Your task to perform on an android device: change alarm snooze length Image 0: 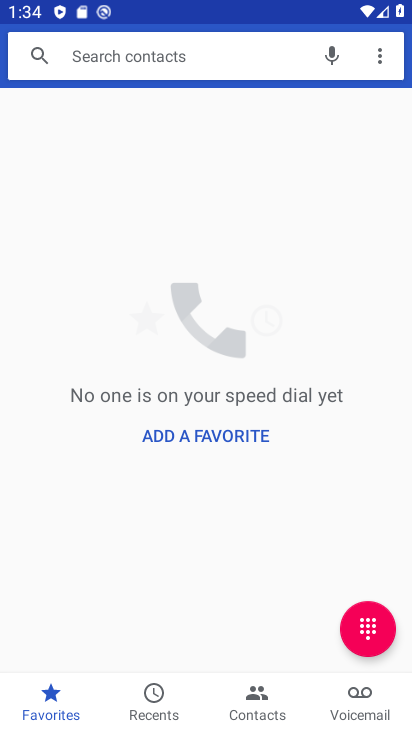
Step 0: press home button
Your task to perform on an android device: change alarm snooze length Image 1: 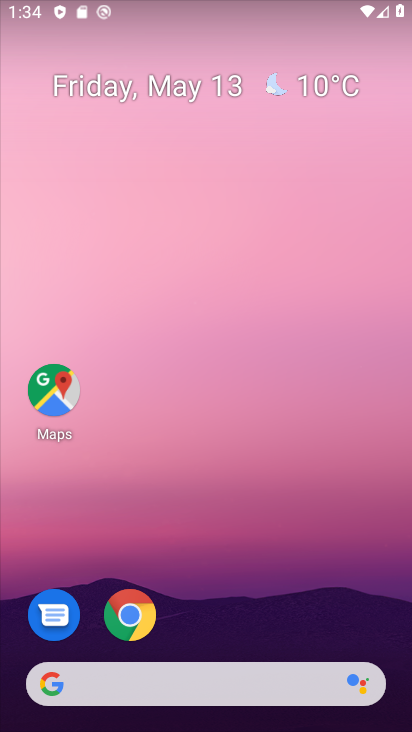
Step 1: drag from (85, 173) to (66, 73)
Your task to perform on an android device: change alarm snooze length Image 2: 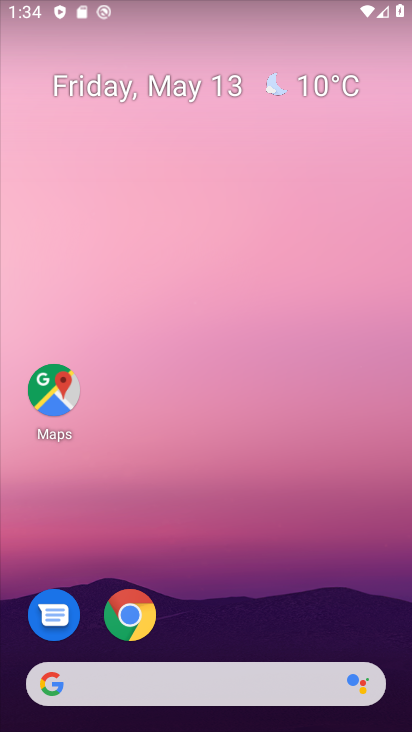
Step 2: drag from (210, 629) to (102, 51)
Your task to perform on an android device: change alarm snooze length Image 3: 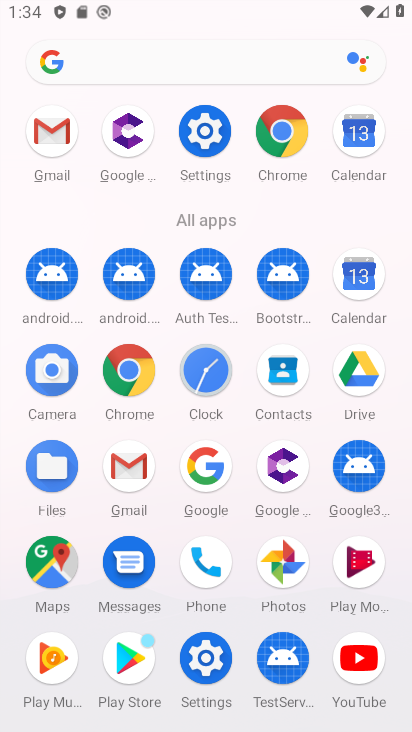
Step 3: click (203, 367)
Your task to perform on an android device: change alarm snooze length Image 4: 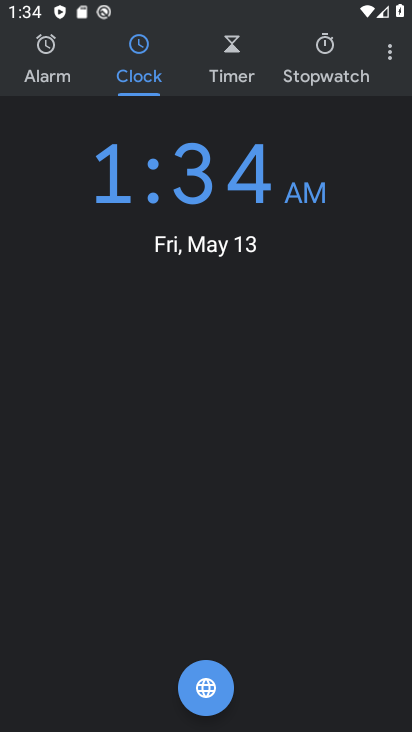
Step 4: click (390, 47)
Your task to perform on an android device: change alarm snooze length Image 5: 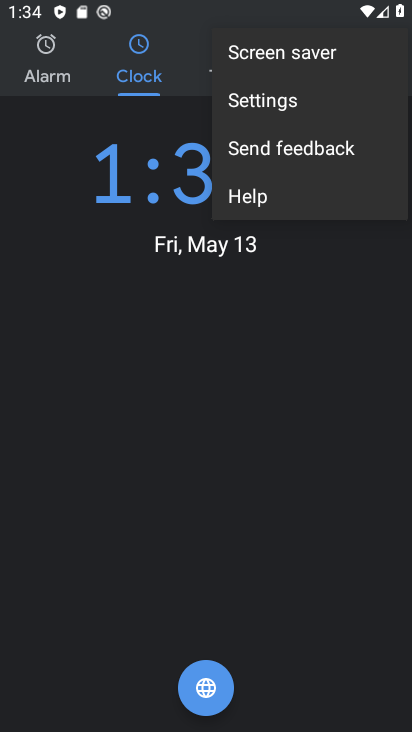
Step 5: click (269, 99)
Your task to perform on an android device: change alarm snooze length Image 6: 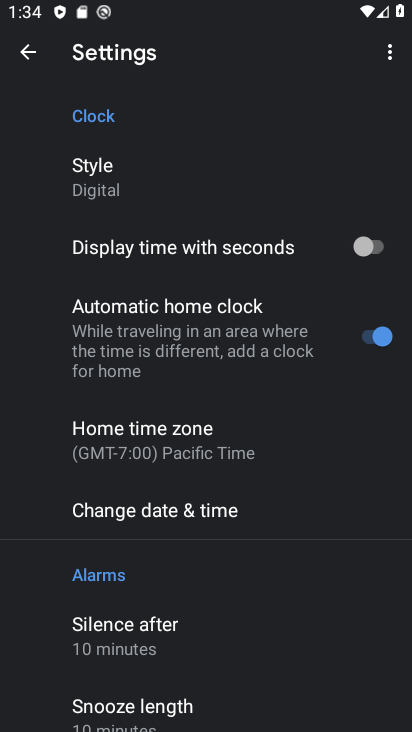
Step 6: click (161, 709)
Your task to perform on an android device: change alarm snooze length Image 7: 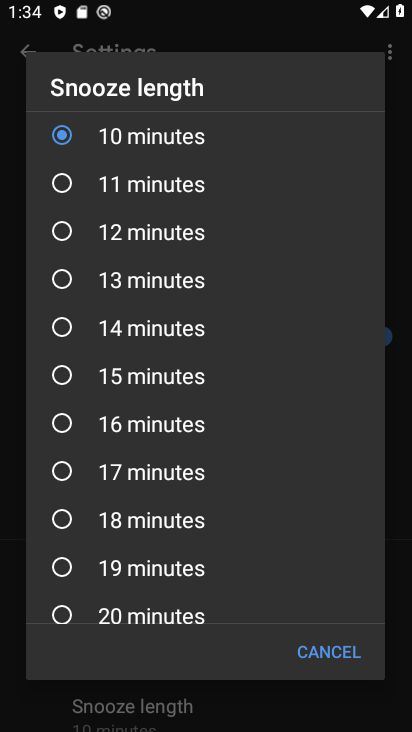
Step 7: click (68, 616)
Your task to perform on an android device: change alarm snooze length Image 8: 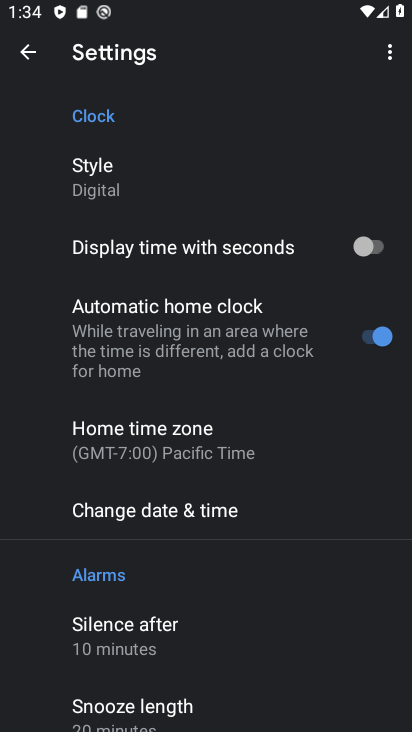
Step 8: task complete